Your task to perform on an android device: open chrome privacy settings Image 0: 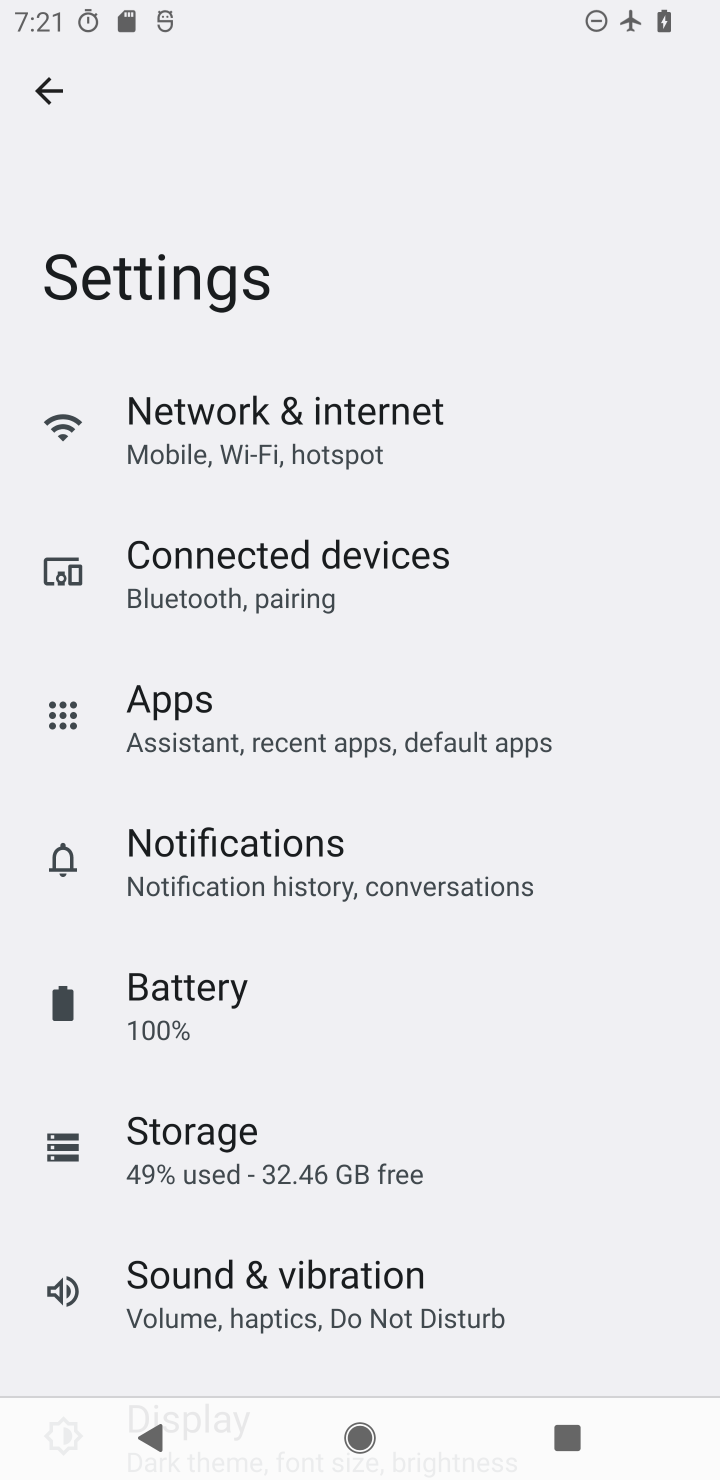
Step 0: press home button
Your task to perform on an android device: open chrome privacy settings Image 1: 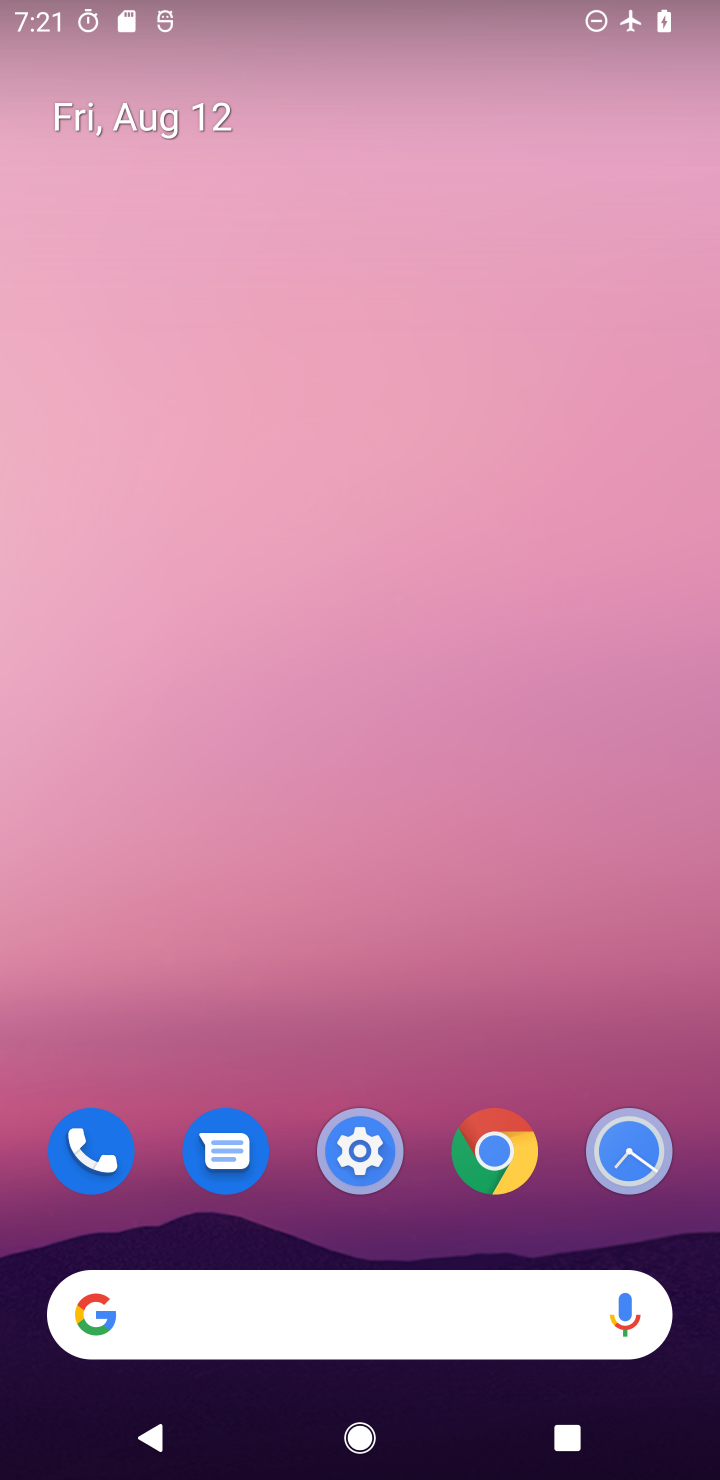
Step 1: drag from (537, 995) to (637, 259)
Your task to perform on an android device: open chrome privacy settings Image 2: 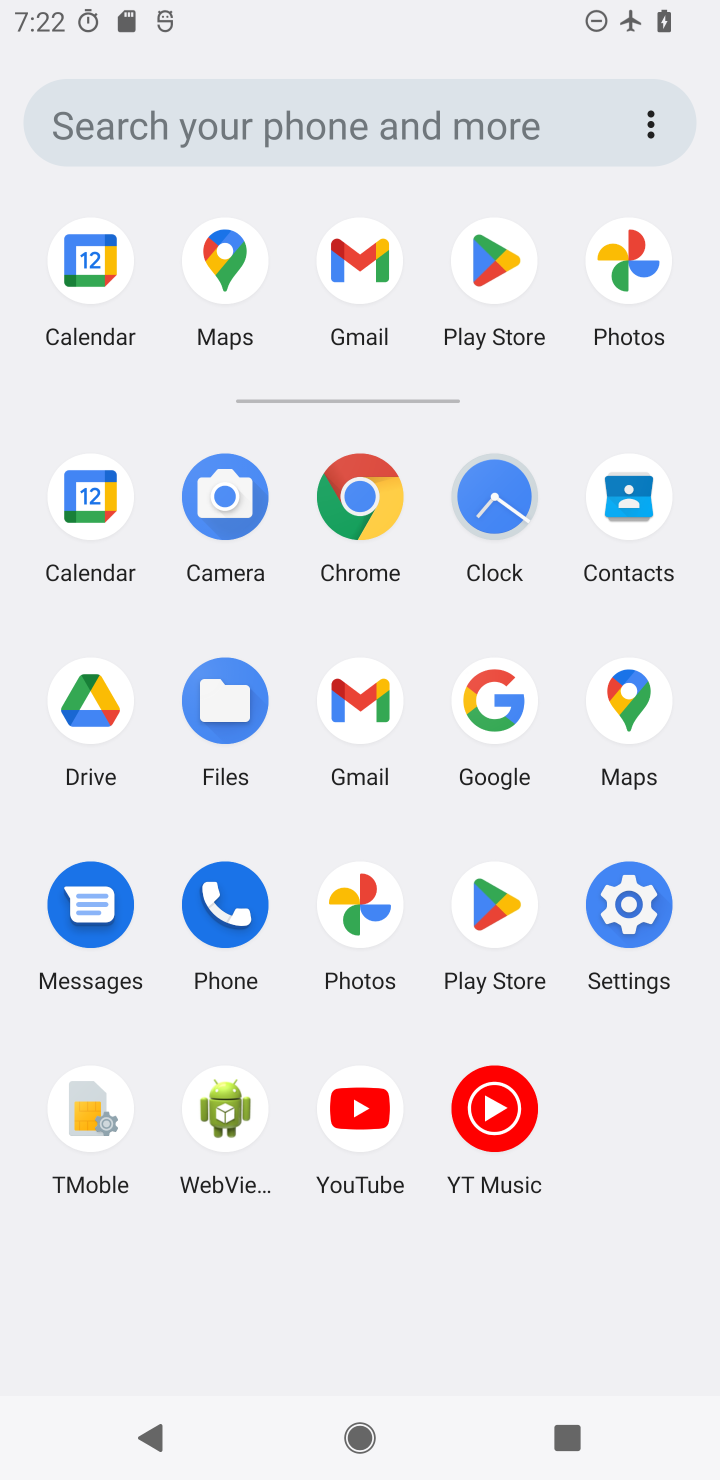
Step 2: click (364, 487)
Your task to perform on an android device: open chrome privacy settings Image 3: 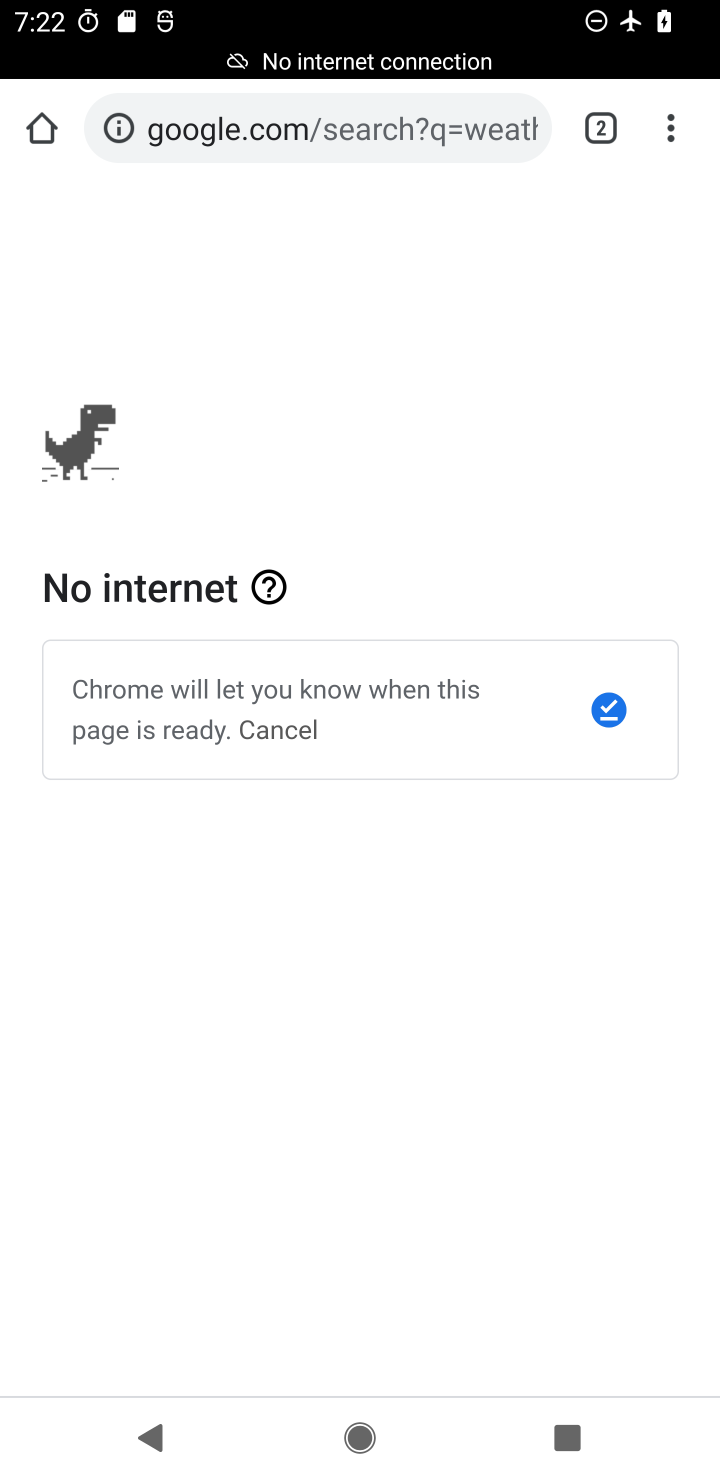
Step 3: drag from (663, 125) to (430, 1224)
Your task to perform on an android device: open chrome privacy settings Image 4: 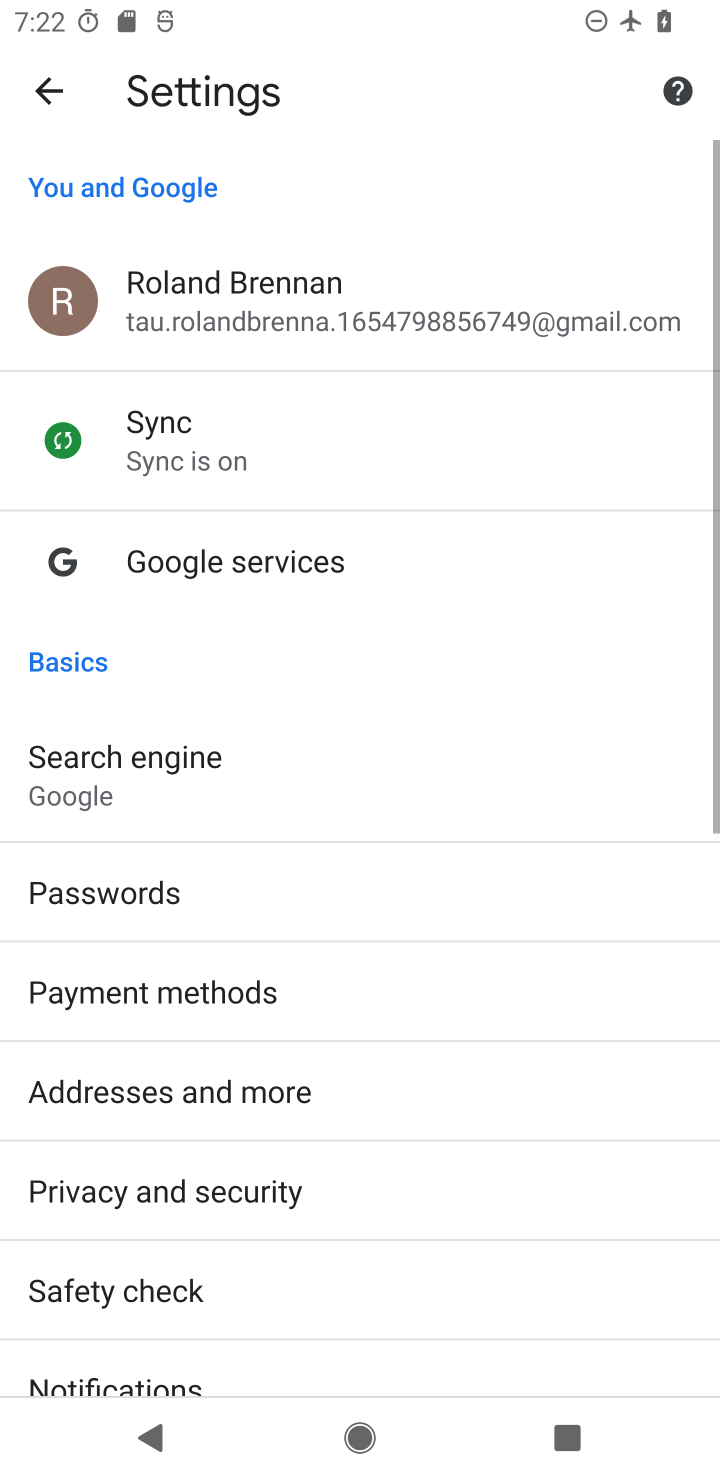
Step 4: drag from (523, 1189) to (717, 151)
Your task to perform on an android device: open chrome privacy settings Image 5: 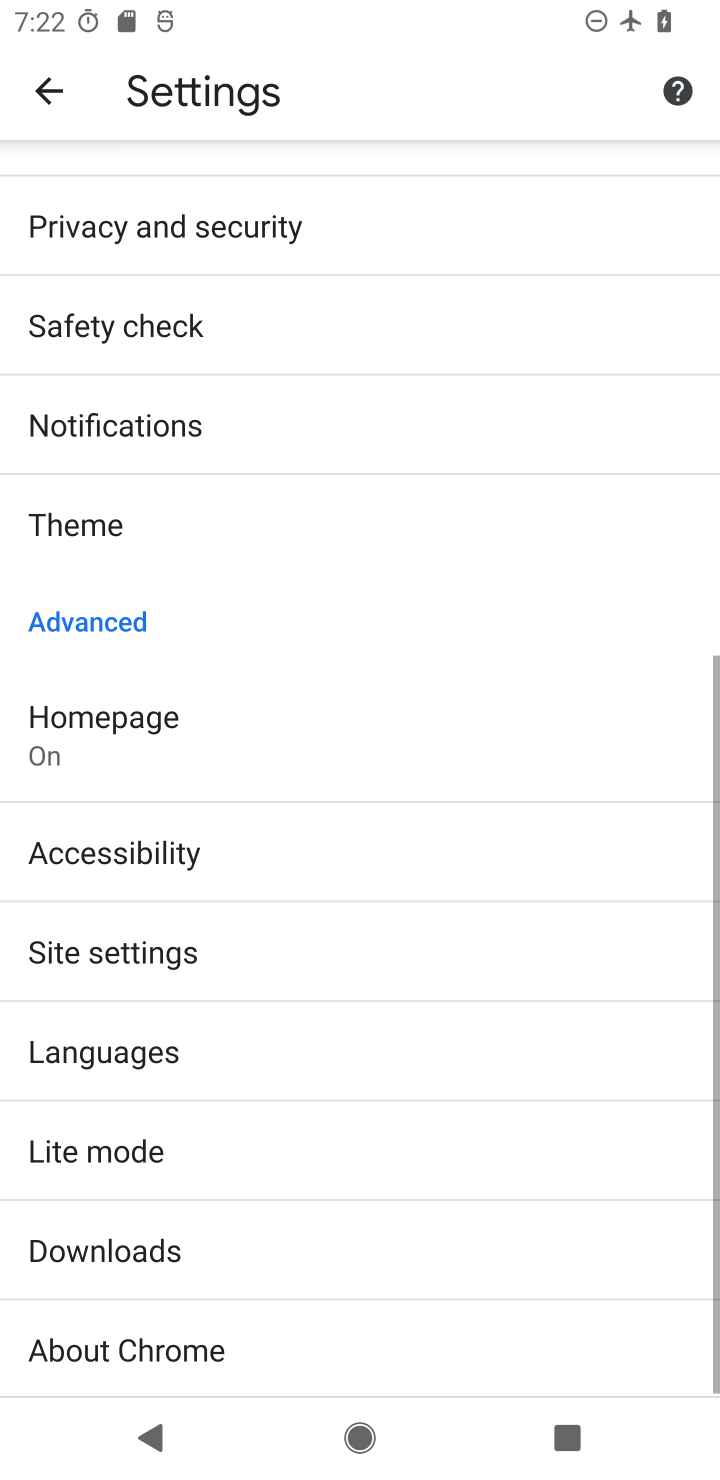
Step 5: drag from (562, 951) to (691, 353)
Your task to perform on an android device: open chrome privacy settings Image 6: 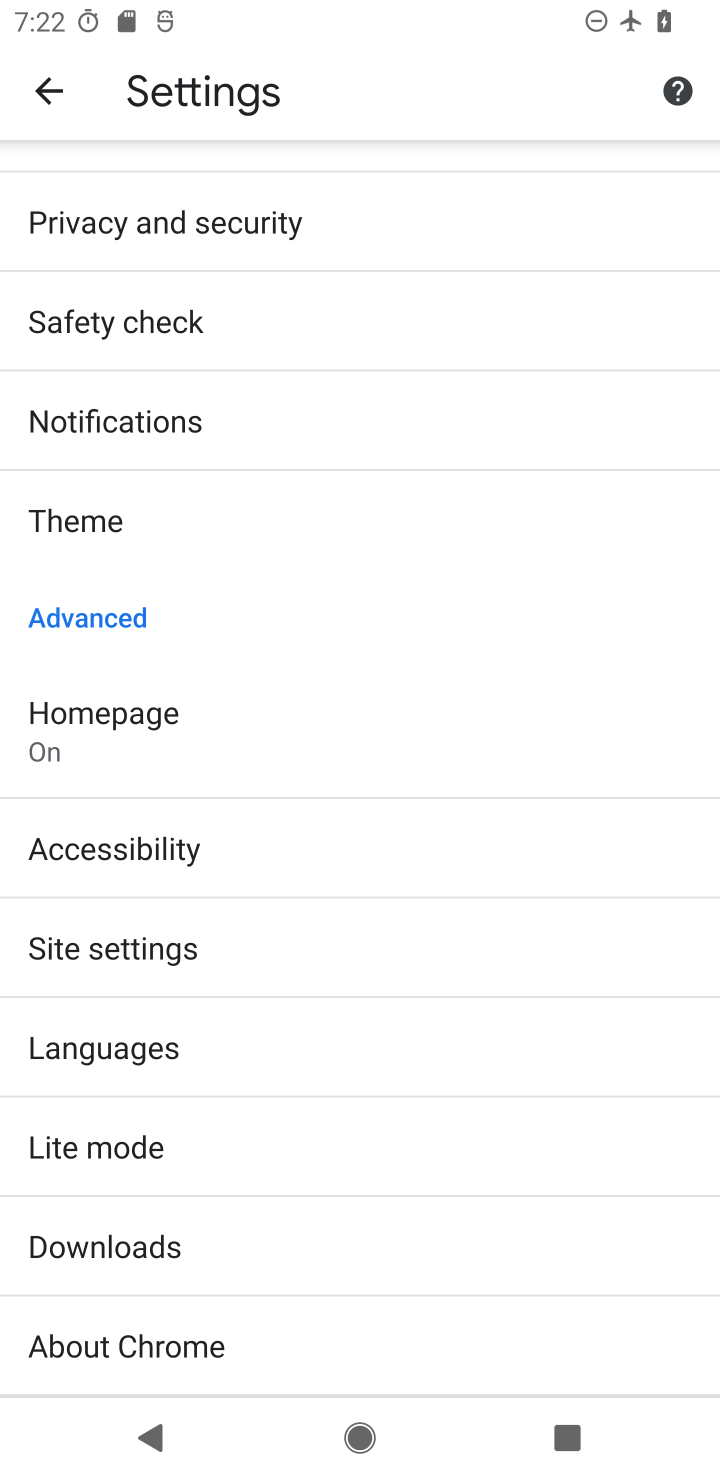
Step 6: drag from (541, 976) to (619, 475)
Your task to perform on an android device: open chrome privacy settings Image 7: 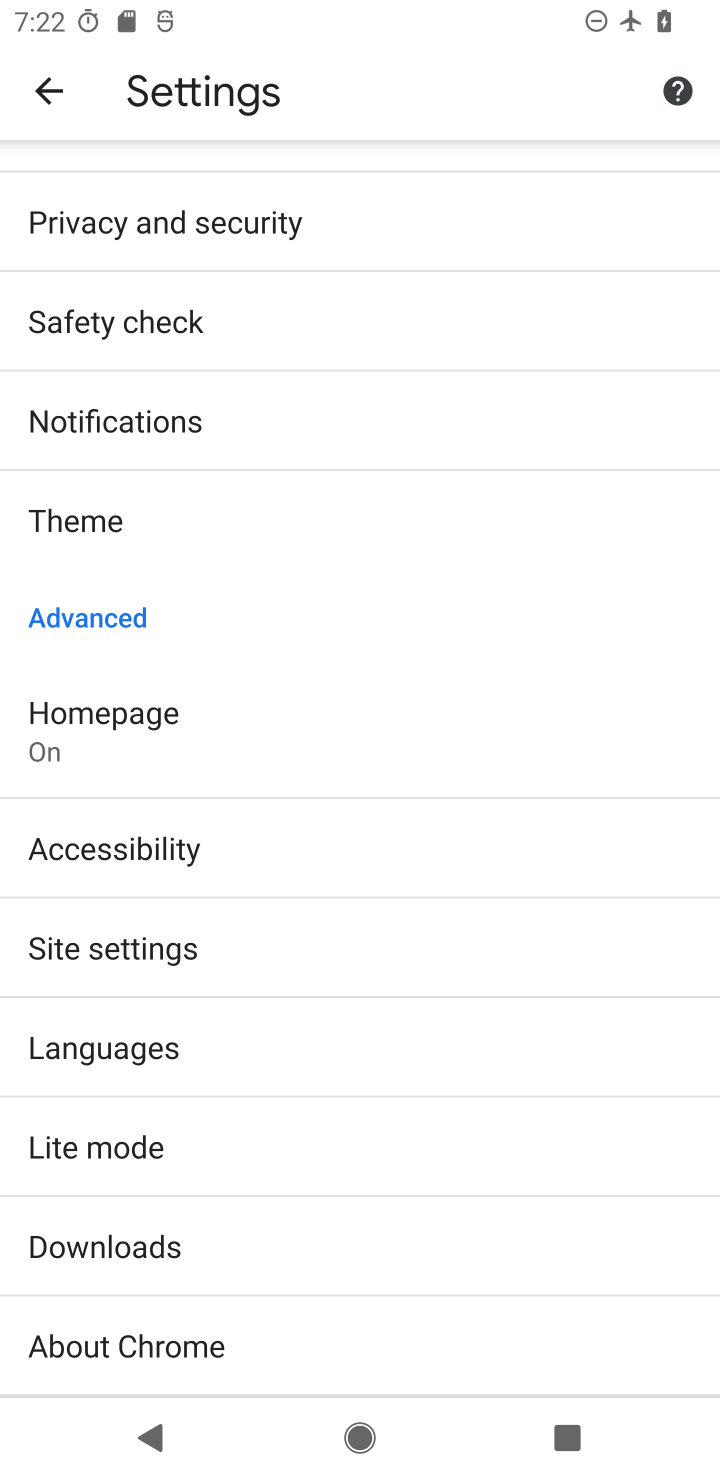
Step 7: click (72, 946)
Your task to perform on an android device: open chrome privacy settings Image 8: 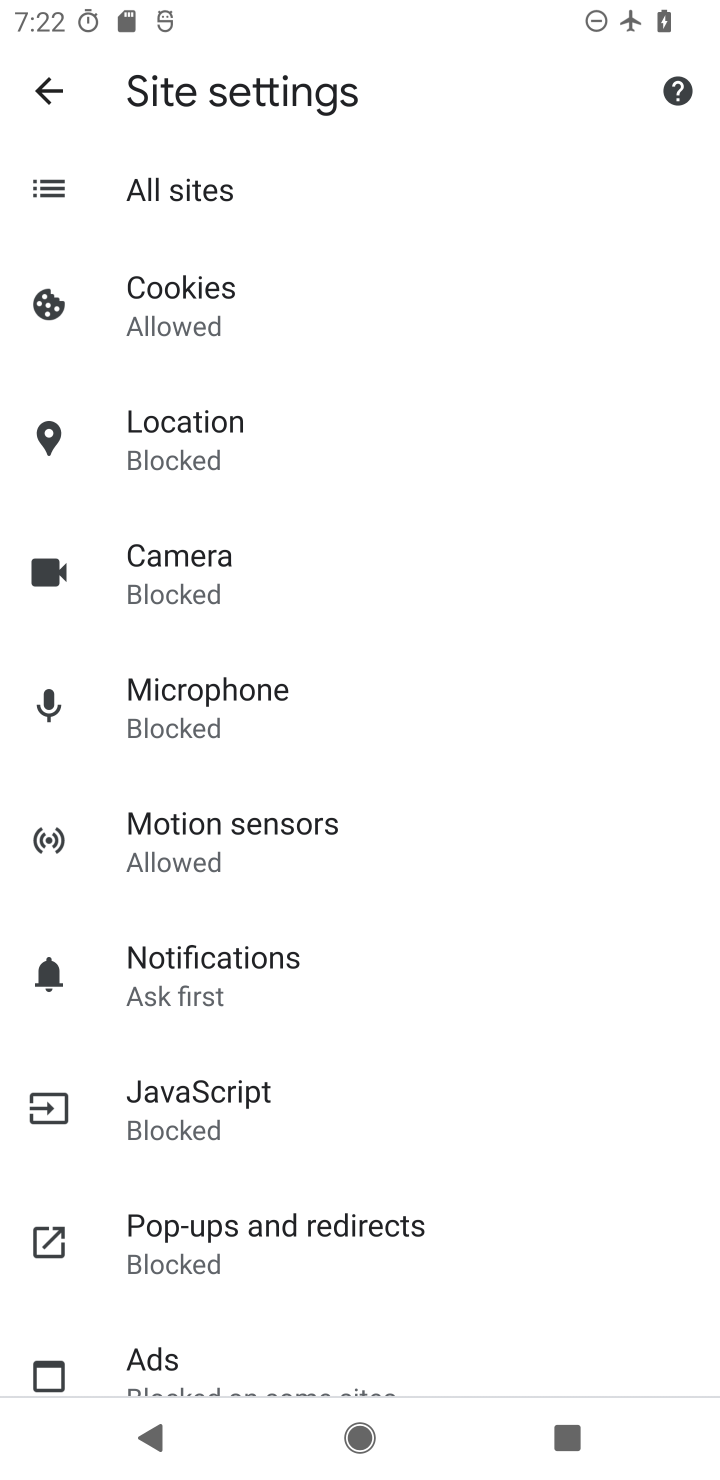
Step 8: drag from (558, 838) to (630, 260)
Your task to perform on an android device: open chrome privacy settings Image 9: 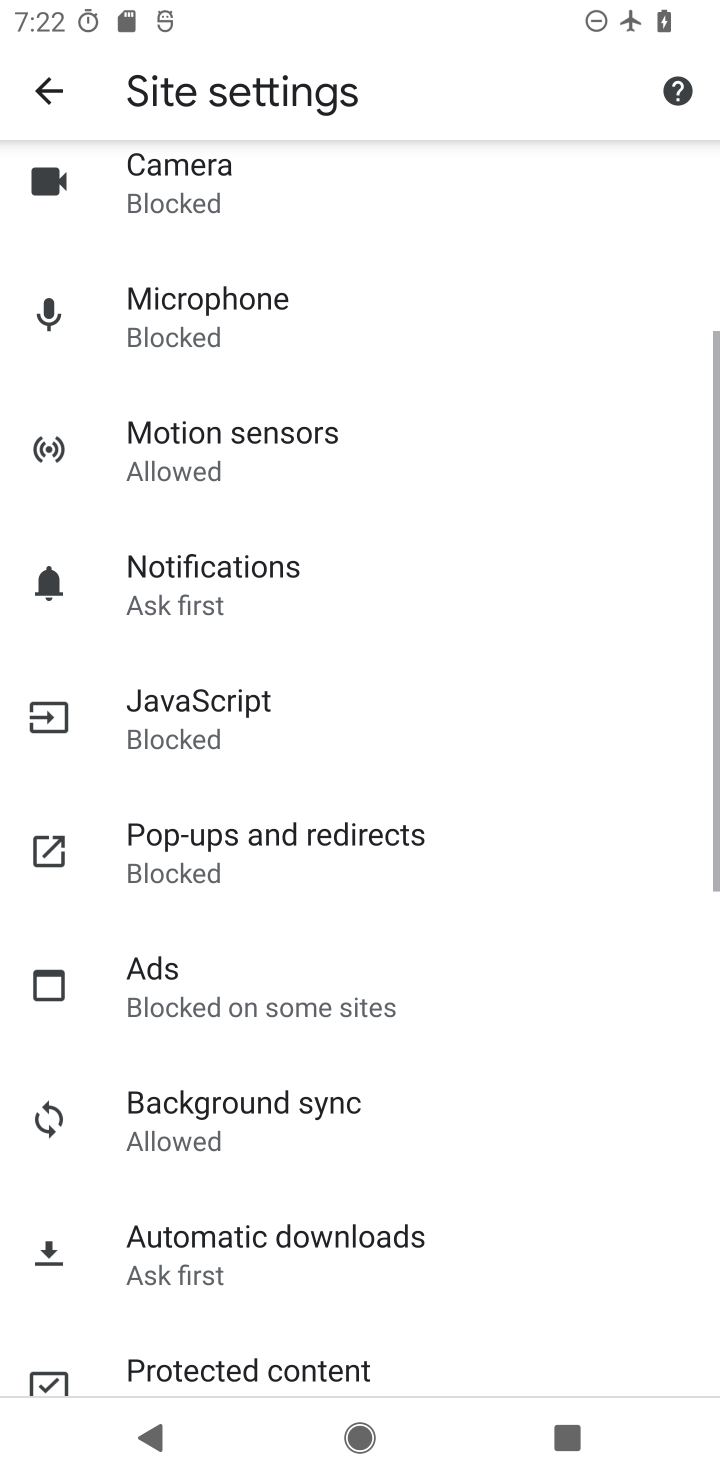
Step 9: drag from (463, 1215) to (546, 428)
Your task to perform on an android device: open chrome privacy settings Image 10: 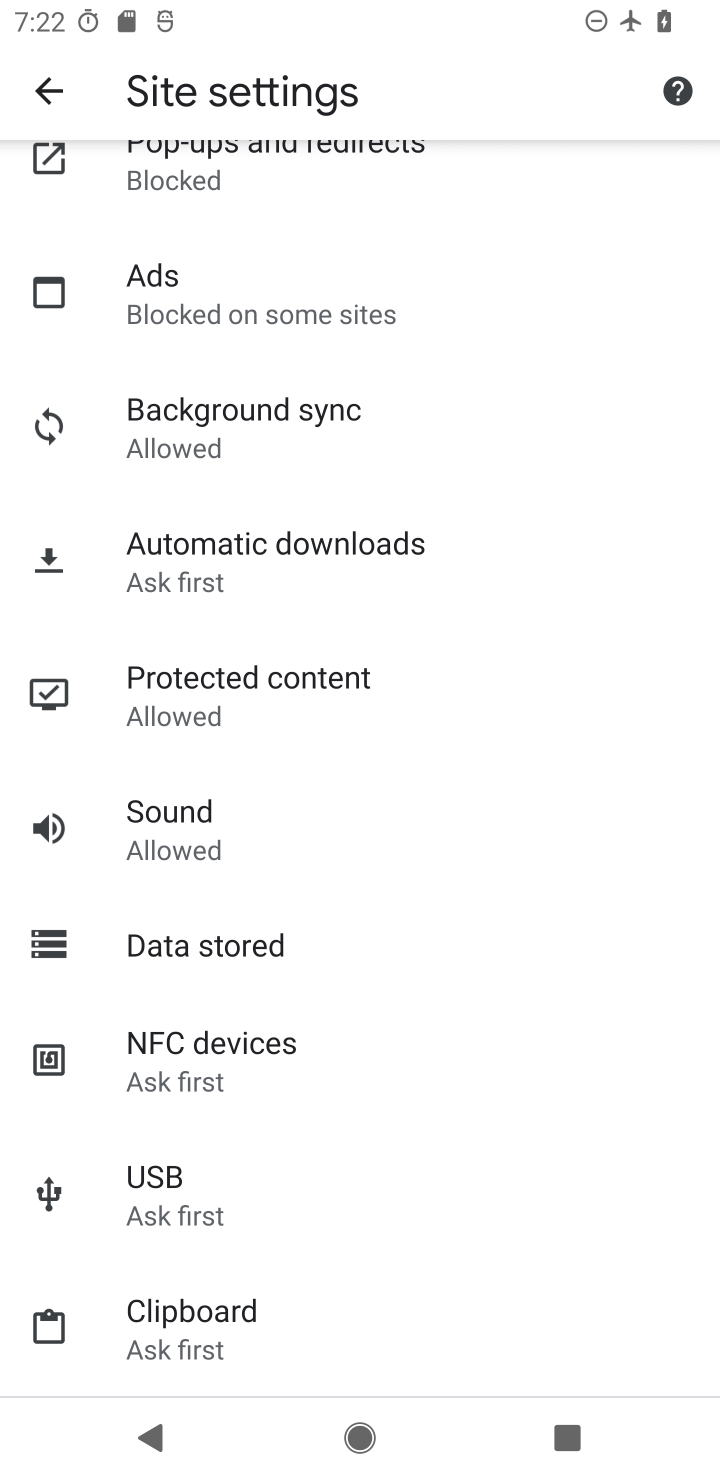
Step 10: drag from (527, 1343) to (676, 411)
Your task to perform on an android device: open chrome privacy settings Image 11: 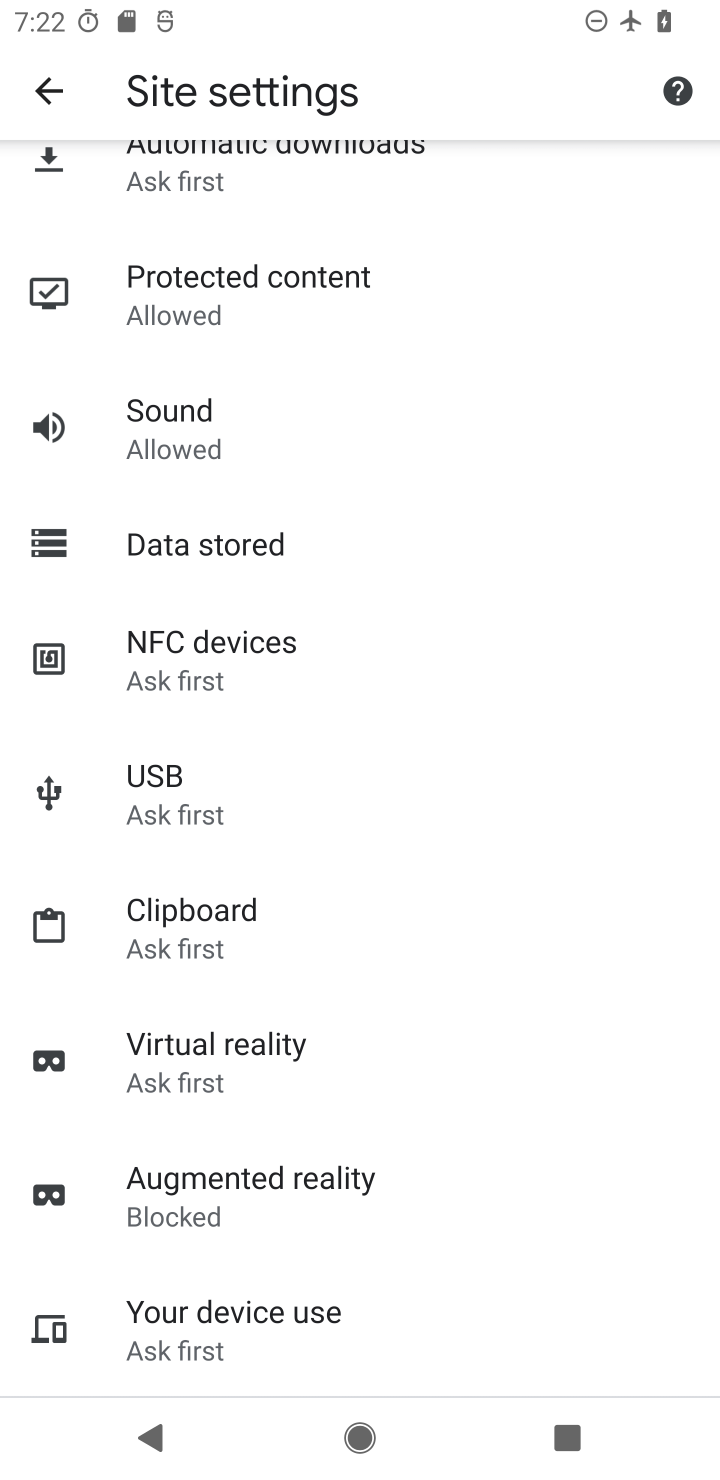
Step 11: drag from (478, 1090) to (582, 254)
Your task to perform on an android device: open chrome privacy settings Image 12: 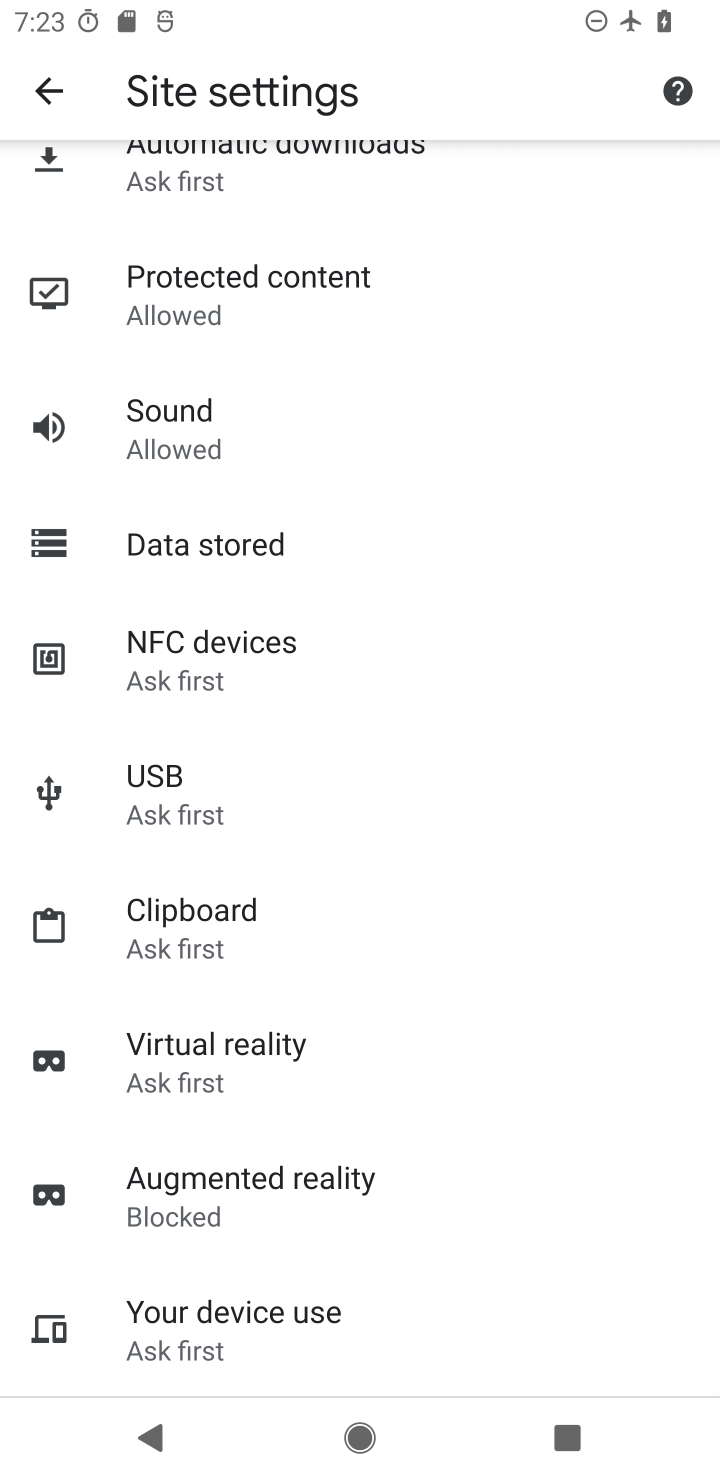
Step 12: drag from (575, 256) to (514, 1423)
Your task to perform on an android device: open chrome privacy settings Image 13: 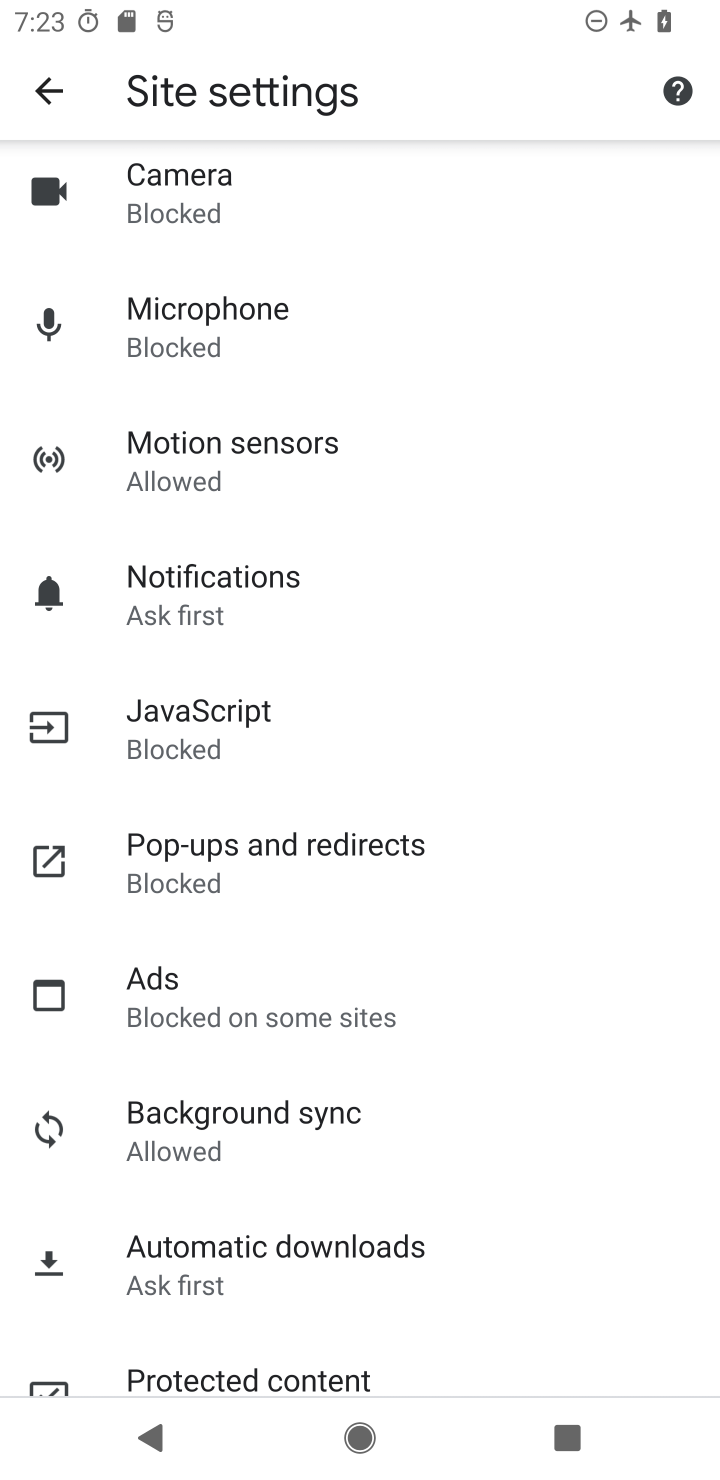
Step 13: drag from (553, 363) to (526, 1202)
Your task to perform on an android device: open chrome privacy settings Image 14: 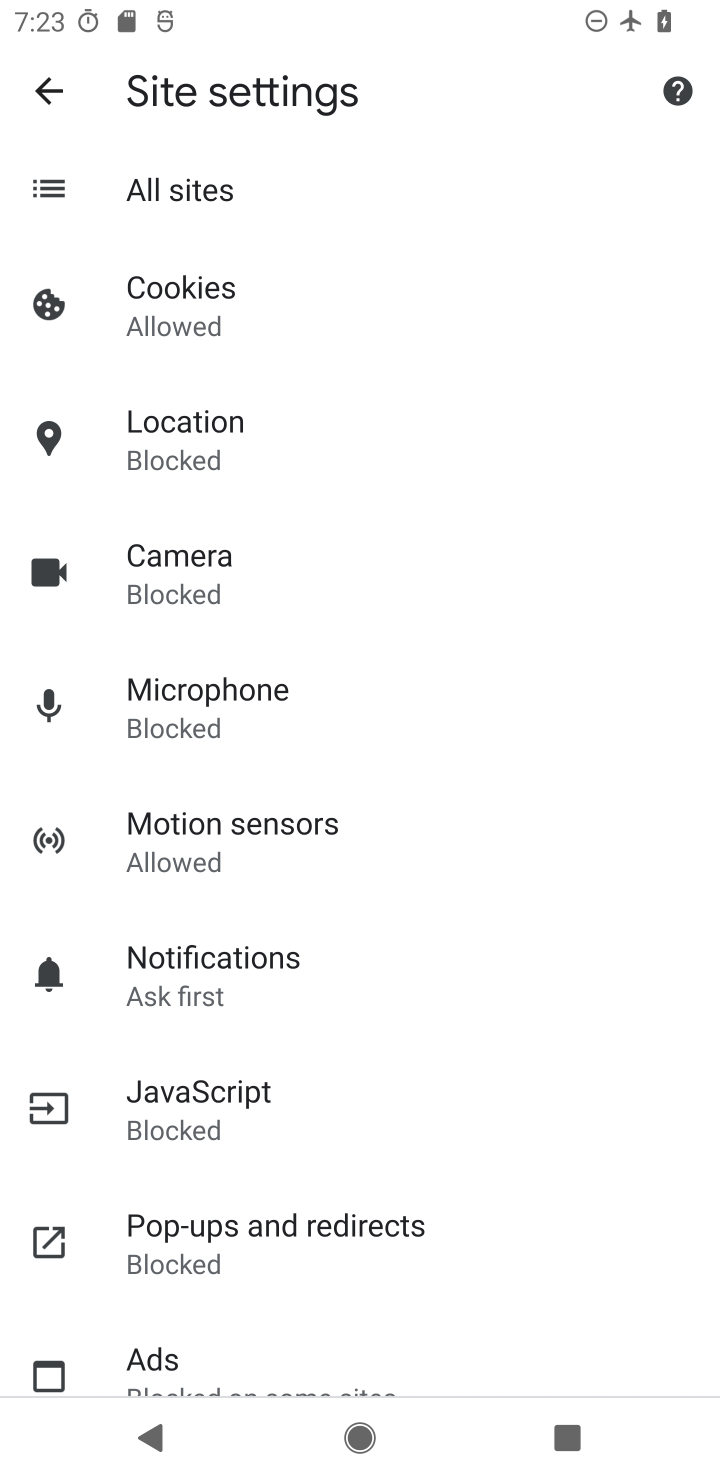
Step 14: drag from (464, 452) to (484, 1115)
Your task to perform on an android device: open chrome privacy settings Image 15: 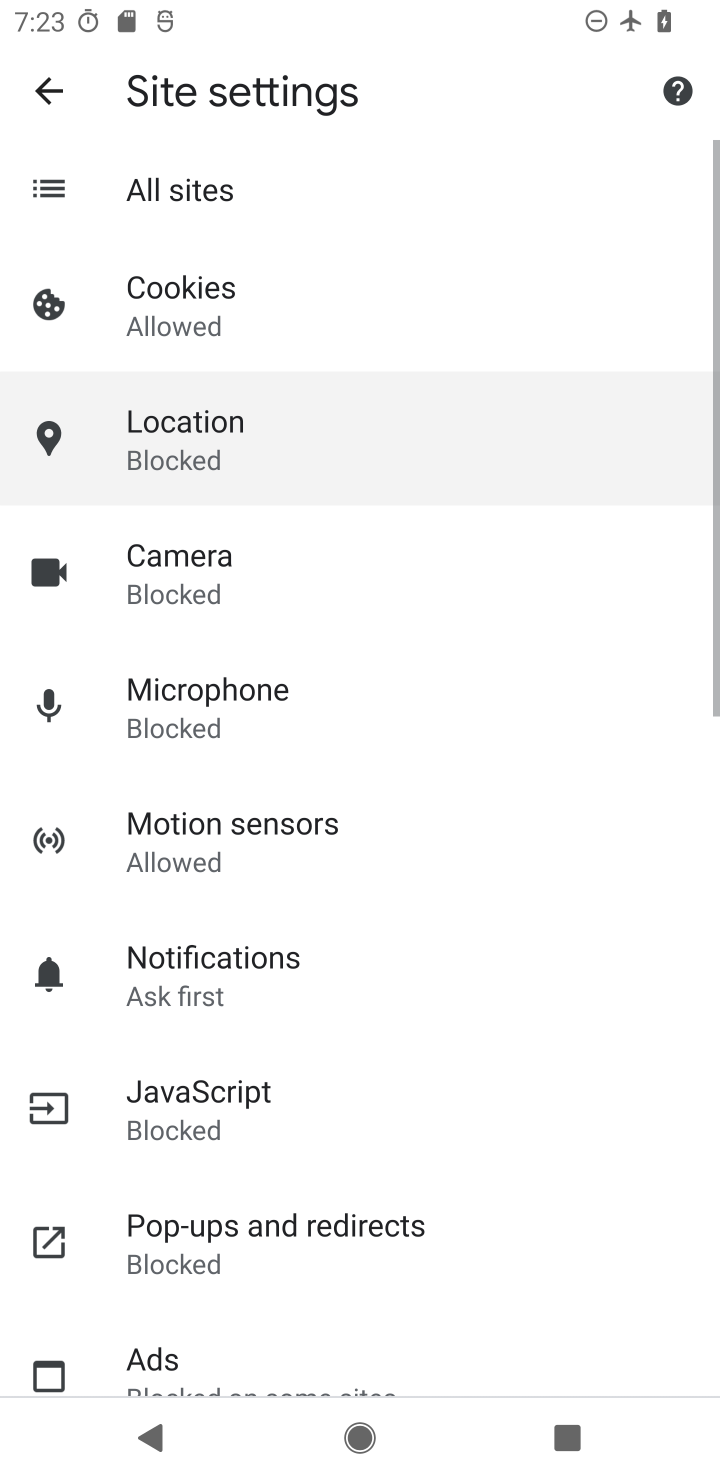
Step 15: press back button
Your task to perform on an android device: open chrome privacy settings Image 16: 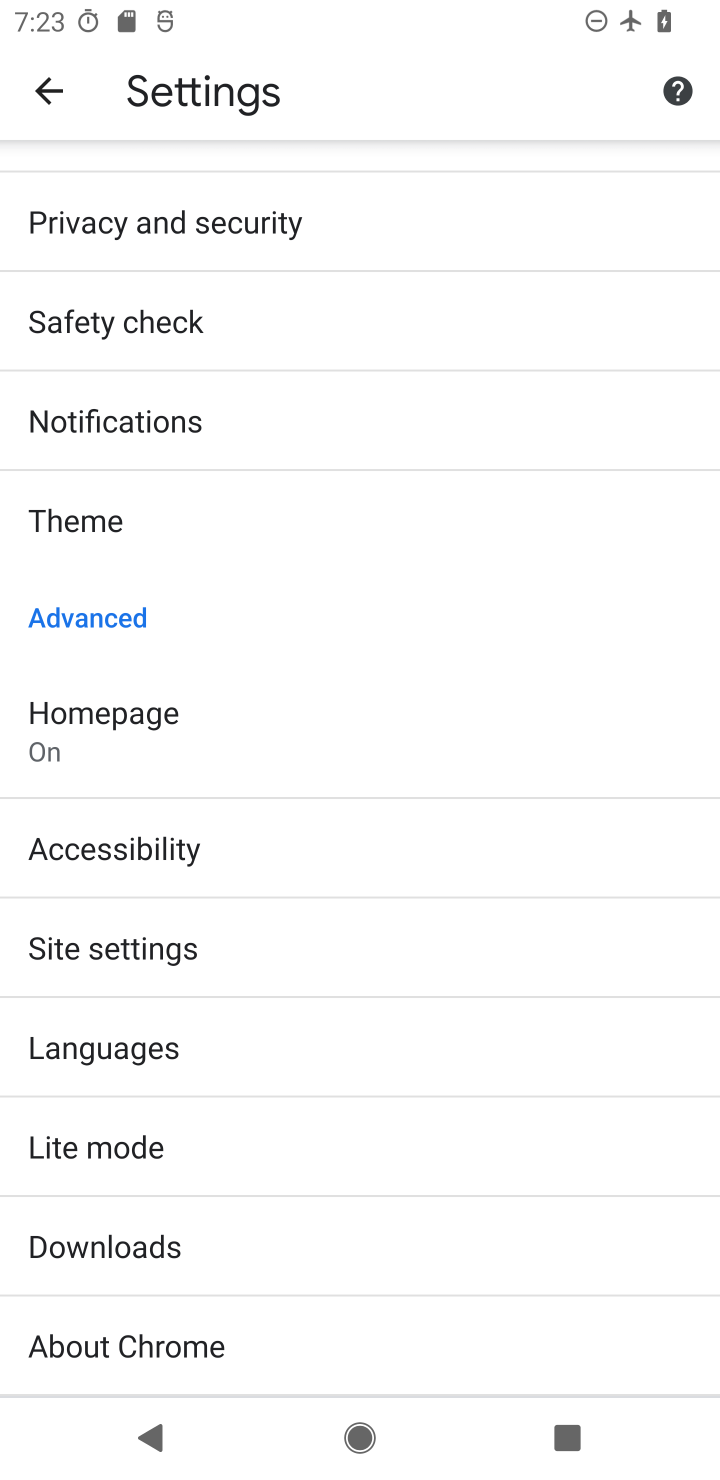
Step 16: click (234, 236)
Your task to perform on an android device: open chrome privacy settings Image 17: 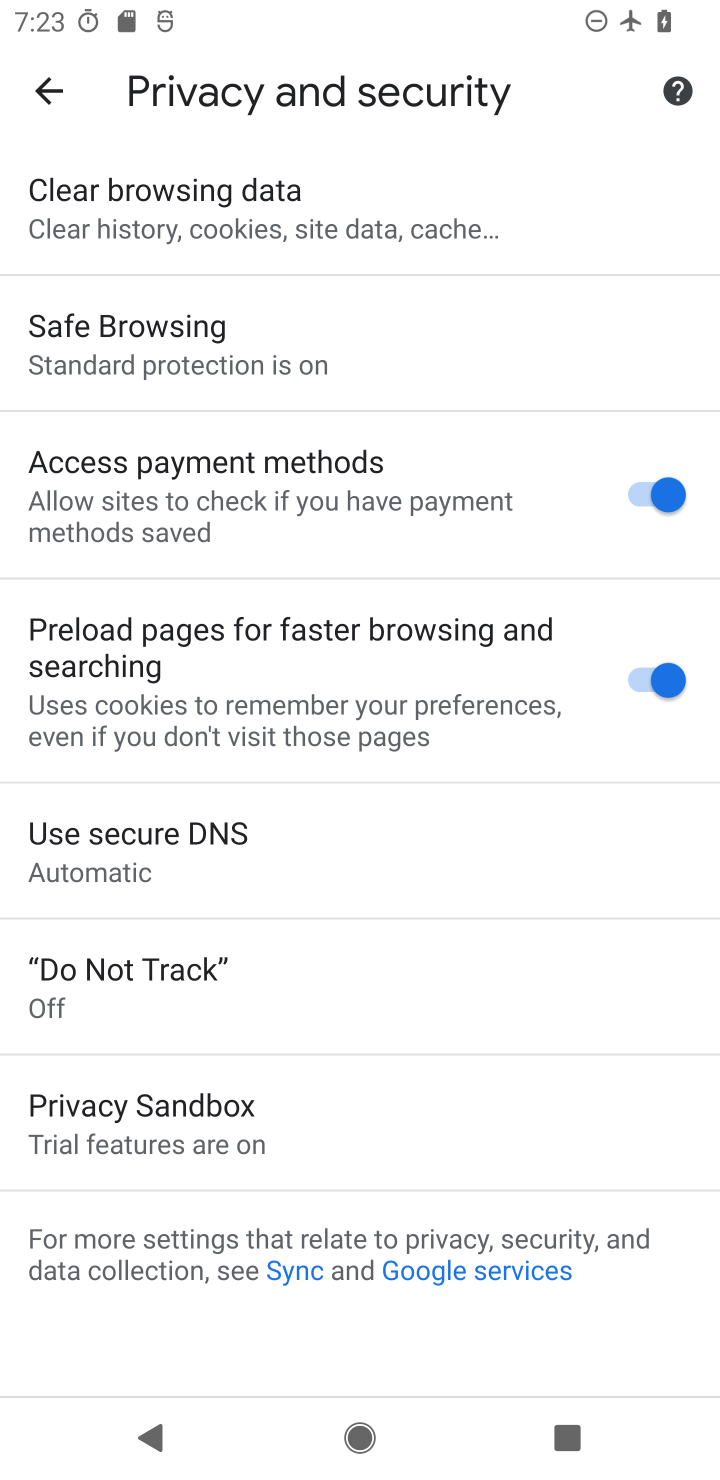
Step 17: task complete